Your task to perform on an android device: move a message to another label in the gmail app Image 0: 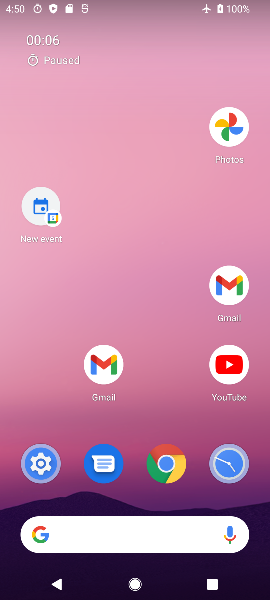
Step 0: drag from (179, 388) to (97, 17)
Your task to perform on an android device: move a message to another label in the gmail app Image 1: 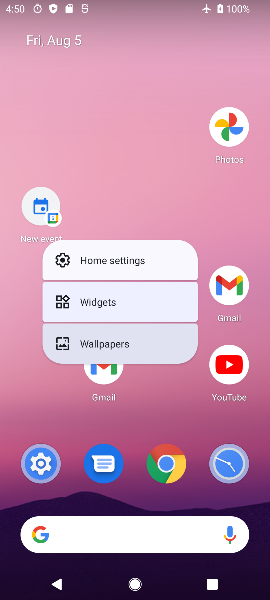
Step 1: drag from (100, 181) to (119, 160)
Your task to perform on an android device: move a message to another label in the gmail app Image 2: 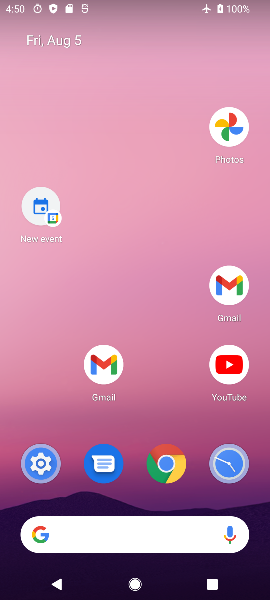
Step 2: drag from (192, 318) to (171, 174)
Your task to perform on an android device: move a message to another label in the gmail app Image 3: 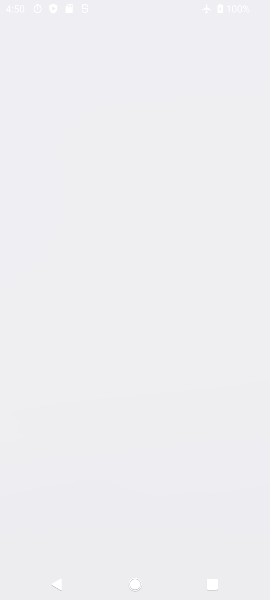
Step 3: drag from (120, 469) to (92, 202)
Your task to perform on an android device: move a message to another label in the gmail app Image 4: 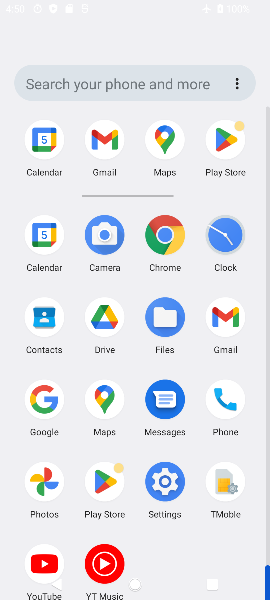
Step 4: drag from (162, 376) to (134, 137)
Your task to perform on an android device: move a message to another label in the gmail app Image 5: 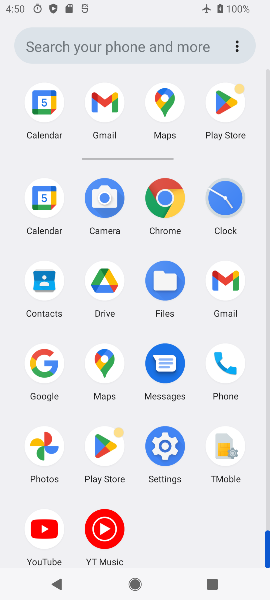
Step 5: drag from (169, 249) to (169, 113)
Your task to perform on an android device: move a message to another label in the gmail app Image 6: 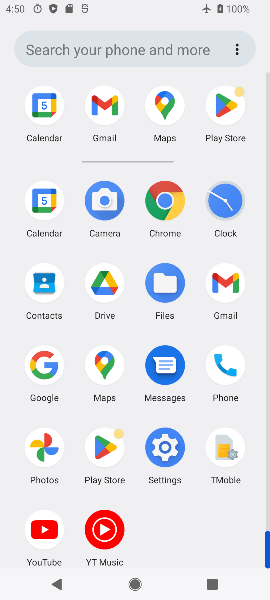
Step 6: click (226, 280)
Your task to perform on an android device: move a message to another label in the gmail app Image 7: 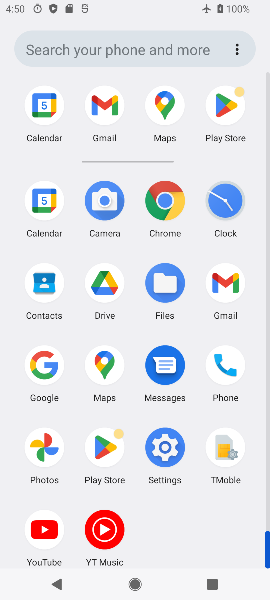
Step 7: click (226, 280)
Your task to perform on an android device: move a message to another label in the gmail app Image 8: 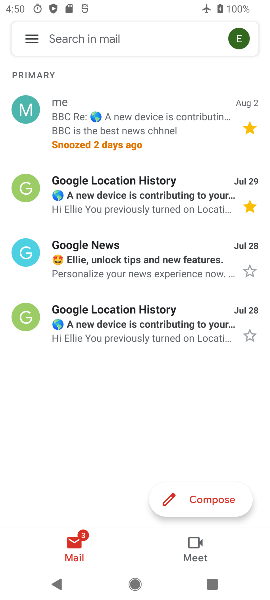
Step 8: click (228, 279)
Your task to perform on an android device: move a message to another label in the gmail app Image 9: 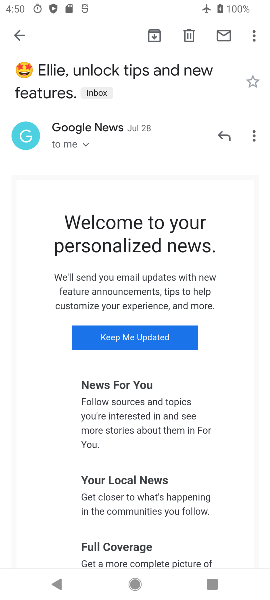
Step 9: click (18, 34)
Your task to perform on an android device: move a message to another label in the gmail app Image 10: 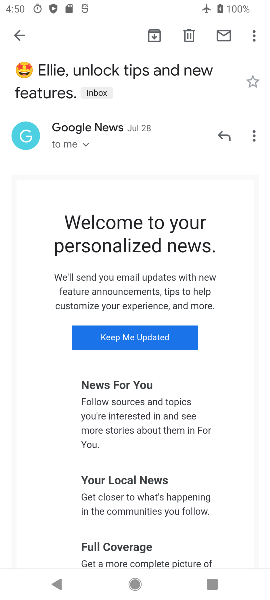
Step 10: click (18, 34)
Your task to perform on an android device: move a message to another label in the gmail app Image 11: 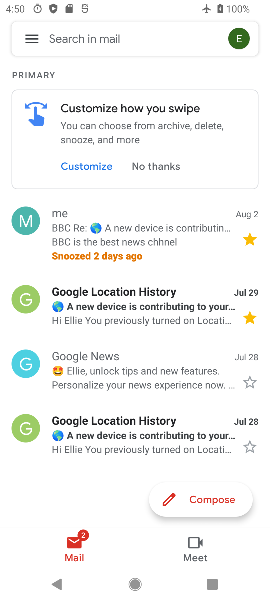
Step 11: click (249, 382)
Your task to perform on an android device: move a message to another label in the gmail app Image 12: 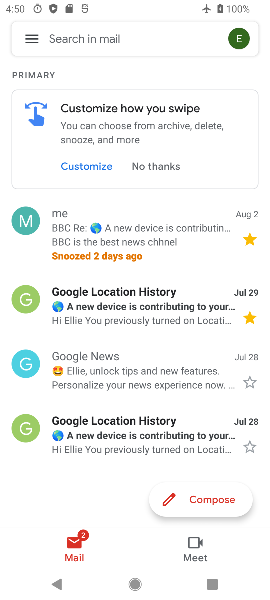
Step 12: click (250, 381)
Your task to perform on an android device: move a message to another label in the gmail app Image 13: 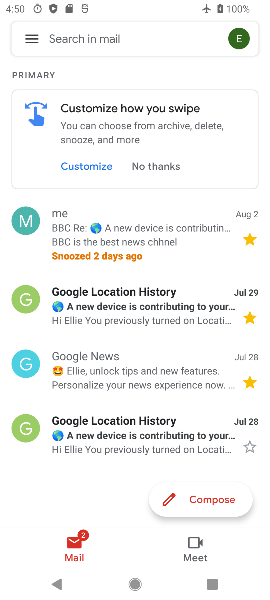
Step 13: click (250, 381)
Your task to perform on an android device: move a message to another label in the gmail app Image 14: 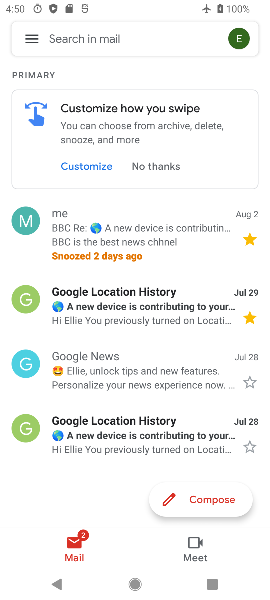
Step 14: click (250, 381)
Your task to perform on an android device: move a message to another label in the gmail app Image 15: 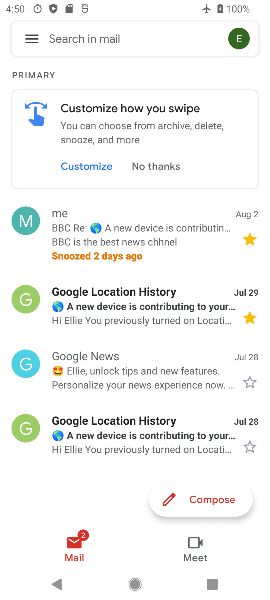
Step 15: click (249, 380)
Your task to perform on an android device: move a message to another label in the gmail app Image 16: 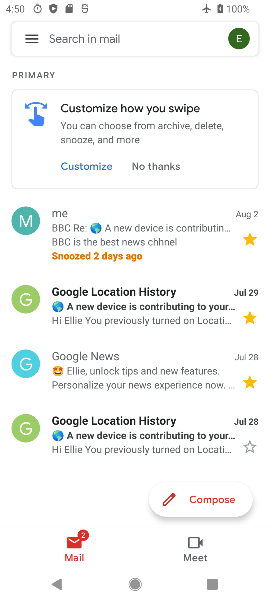
Step 16: task complete